Your task to perform on an android device: toggle pop-ups in chrome Image 0: 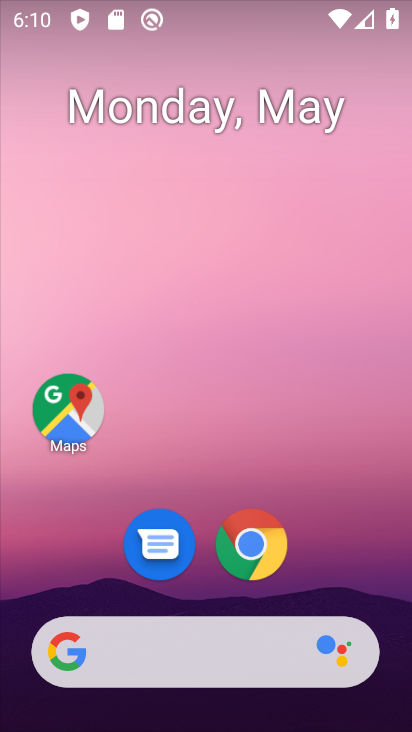
Step 0: click (261, 564)
Your task to perform on an android device: toggle pop-ups in chrome Image 1: 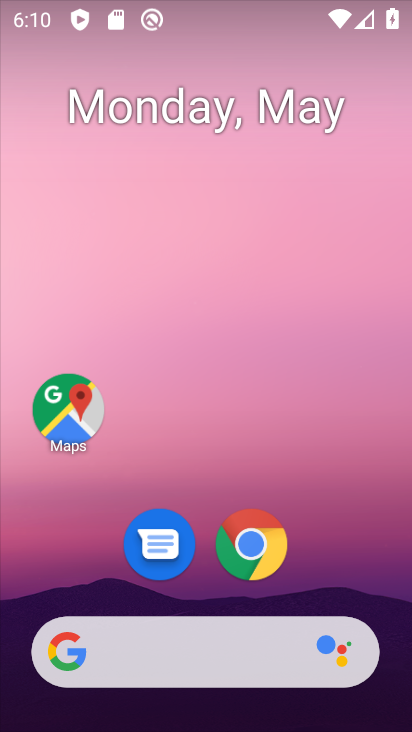
Step 1: click (258, 549)
Your task to perform on an android device: toggle pop-ups in chrome Image 2: 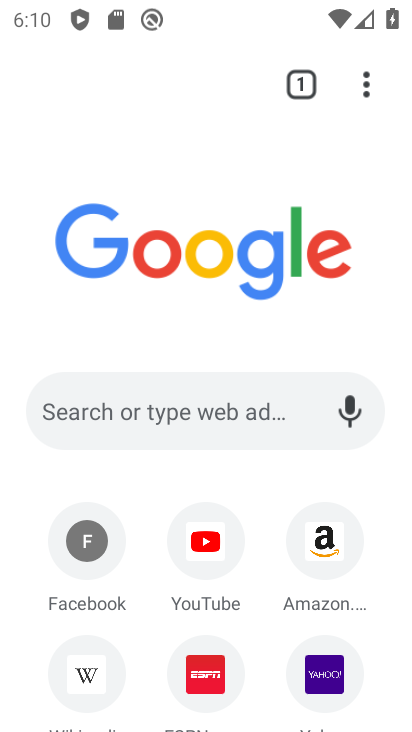
Step 2: click (370, 78)
Your task to perform on an android device: toggle pop-ups in chrome Image 3: 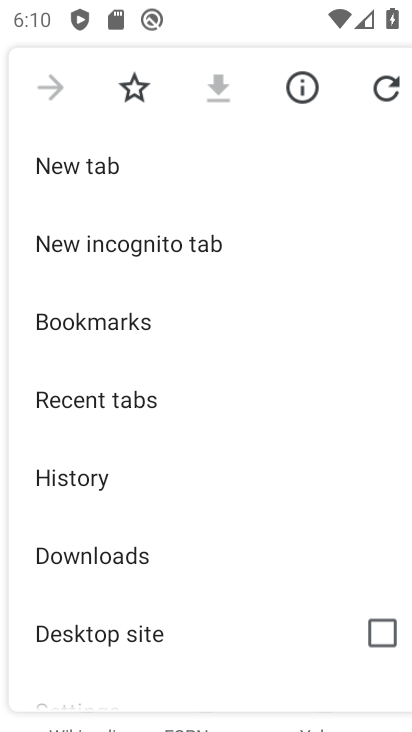
Step 3: drag from (237, 534) to (235, 80)
Your task to perform on an android device: toggle pop-ups in chrome Image 4: 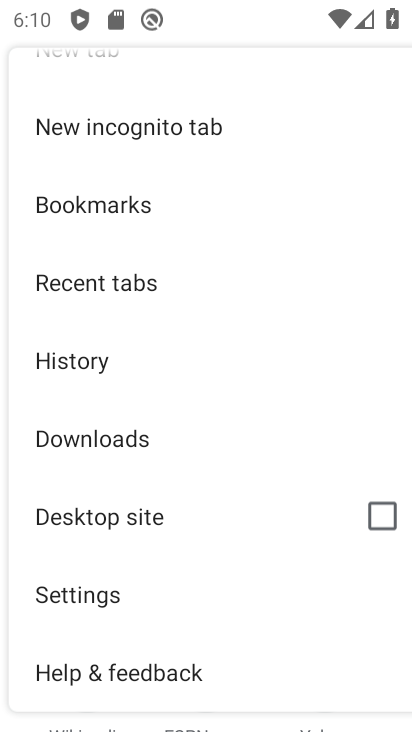
Step 4: click (149, 599)
Your task to perform on an android device: toggle pop-ups in chrome Image 5: 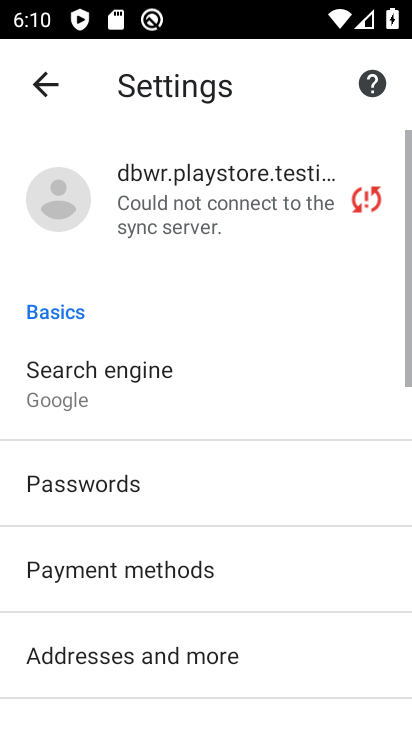
Step 5: drag from (245, 593) to (241, 73)
Your task to perform on an android device: toggle pop-ups in chrome Image 6: 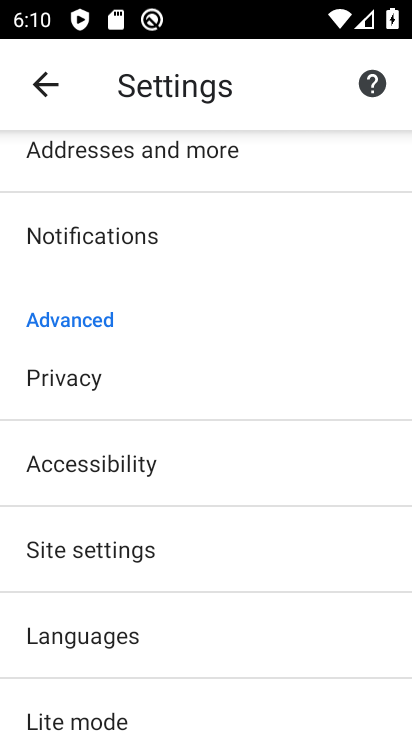
Step 6: click (186, 531)
Your task to perform on an android device: toggle pop-ups in chrome Image 7: 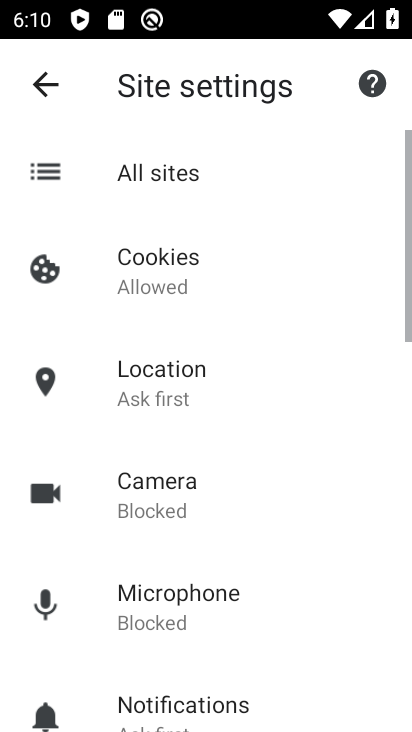
Step 7: drag from (236, 561) to (245, 96)
Your task to perform on an android device: toggle pop-ups in chrome Image 8: 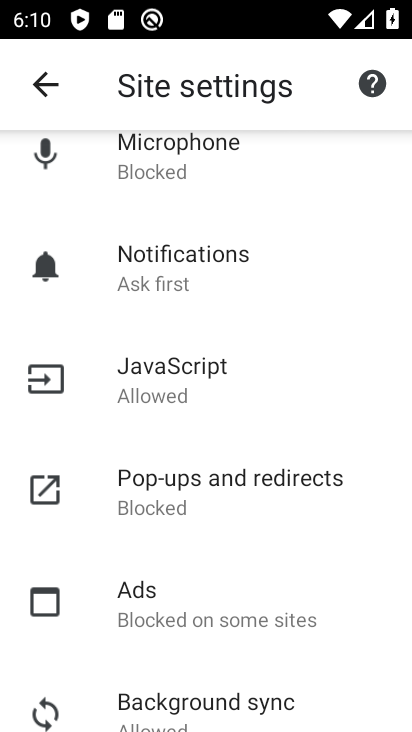
Step 8: click (232, 493)
Your task to perform on an android device: toggle pop-ups in chrome Image 9: 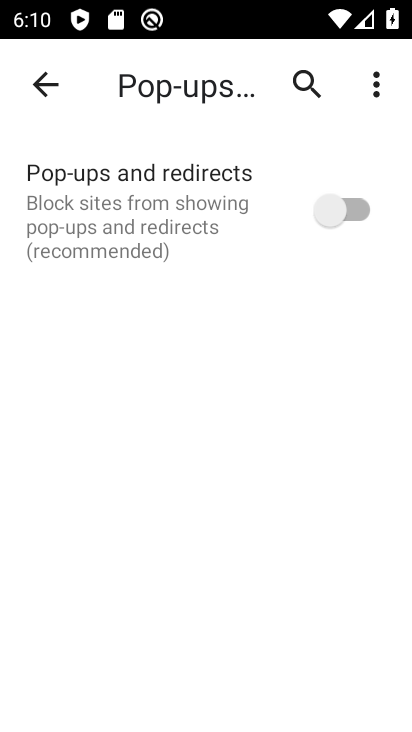
Step 9: click (346, 208)
Your task to perform on an android device: toggle pop-ups in chrome Image 10: 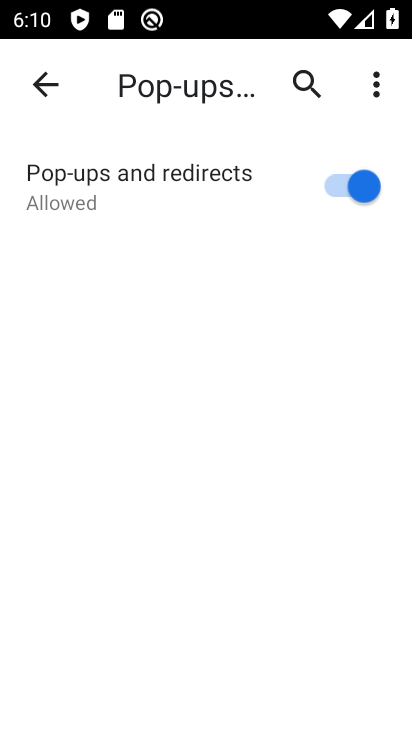
Step 10: task complete